Your task to perform on an android device: Go to Amazon Image 0: 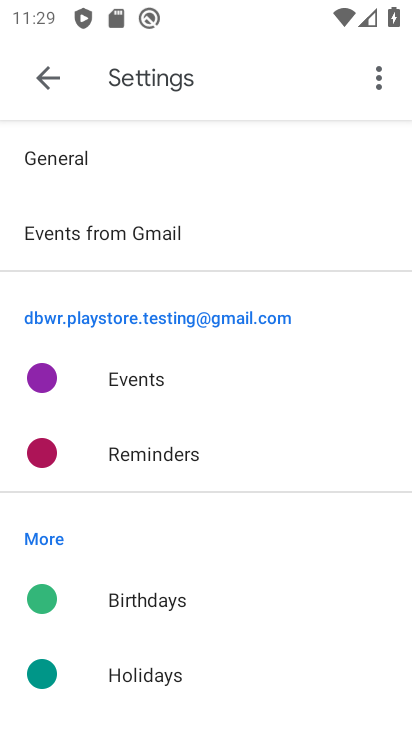
Step 0: press home button
Your task to perform on an android device: Go to Amazon Image 1: 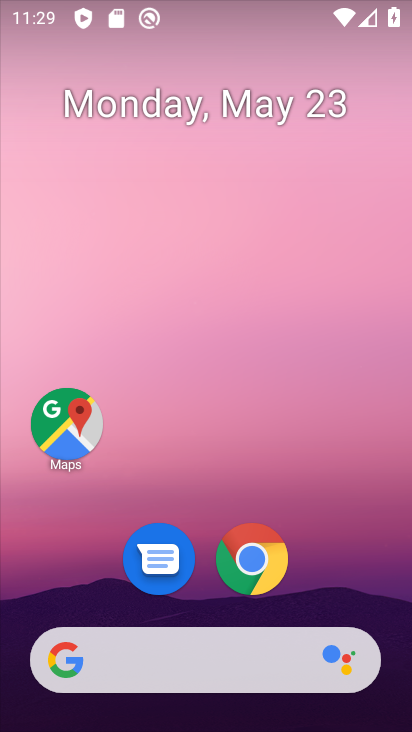
Step 1: drag from (392, 664) to (355, 265)
Your task to perform on an android device: Go to Amazon Image 2: 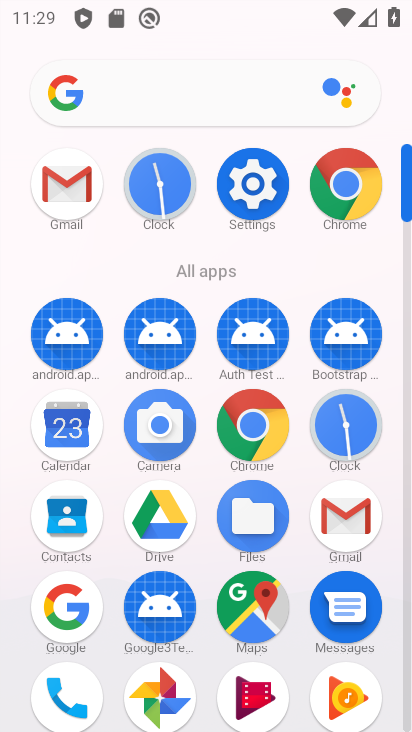
Step 2: click (348, 185)
Your task to perform on an android device: Go to Amazon Image 3: 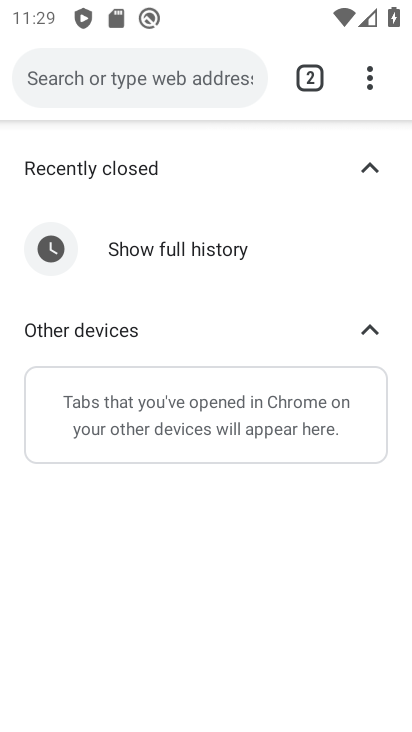
Step 3: click (248, 73)
Your task to perform on an android device: Go to Amazon Image 4: 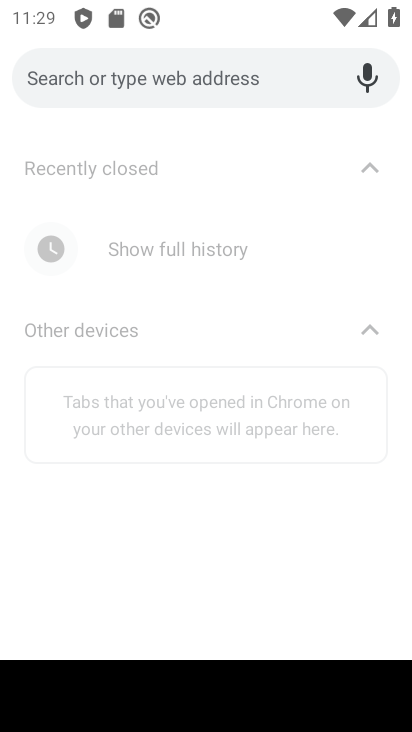
Step 4: type "Amazon"
Your task to perform on an android device: Go to Amazon Image 5: 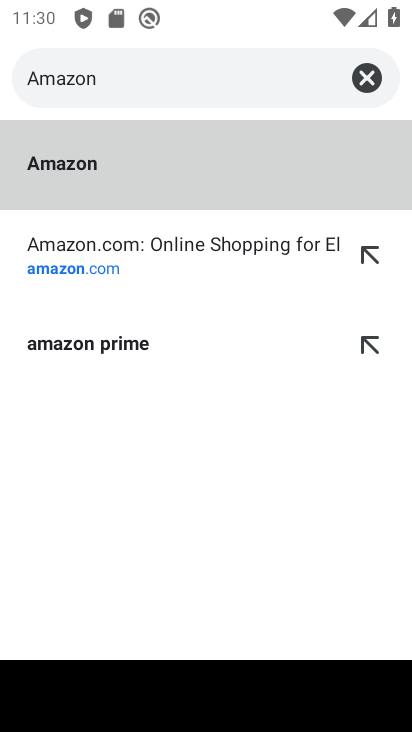
Step 5: click (80, 154)
Your task to perform on an android device: Go to Amazon Image 6: 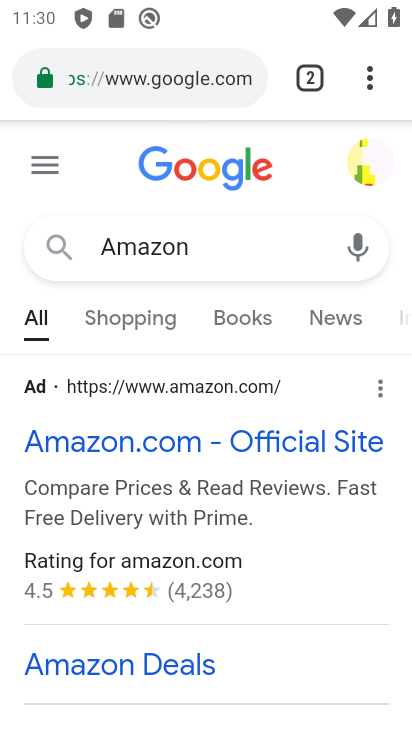
Step 6: task complete